Your task to perform on an android device: turn off javascript in the chrome app Image 0: 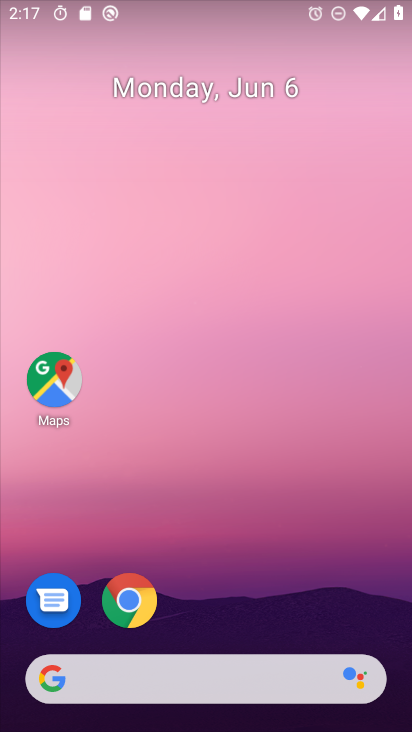
Step 0: click (228, 594)
Your task to perform on an android device: turn off javascript in the chrome app Image 1: 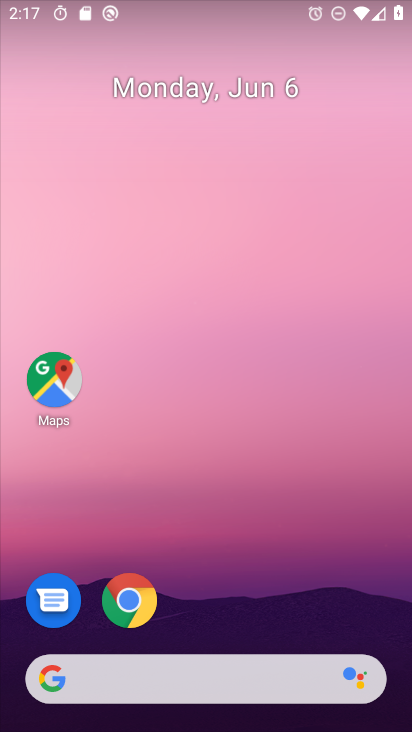
Step 1: click (137, 607)
Your task to perform on an android device: turn off javascript in the chrome app Image 2: 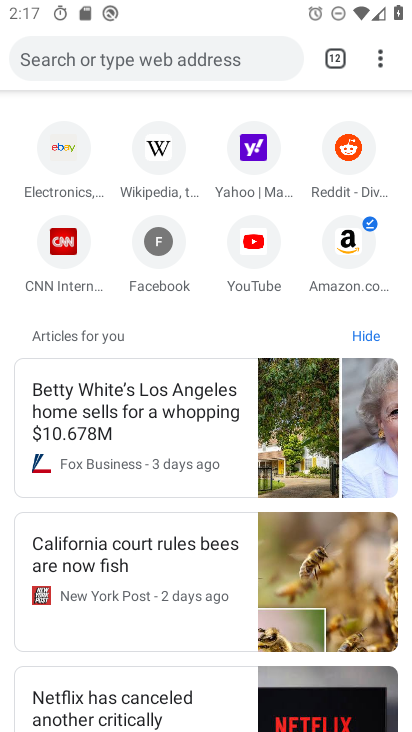
Step 2: click (373, 65)
Your task to perform on an android device: turn off javascript in the chrome app Image 3: 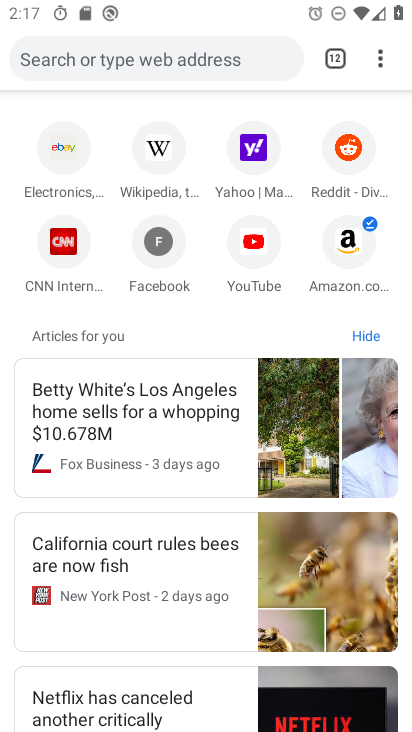
Step 3: click (380, 66)
Your task to perform on an android device: turn off javascript in the chrome app Image 4: 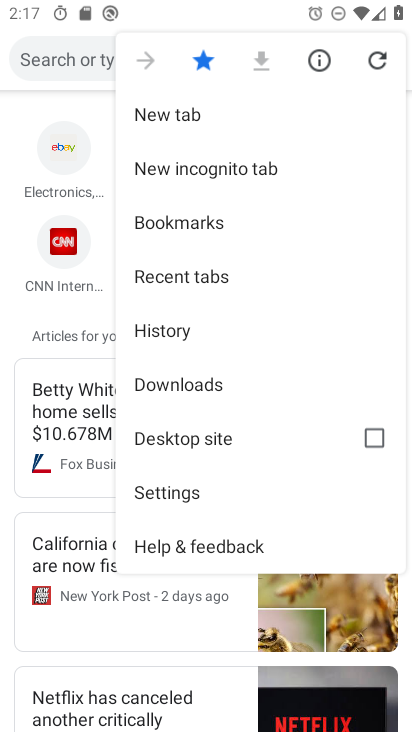
Step 4: click (194, 483)
Your task to perform on an android device: turn off javascript in the chrome app Image 5: 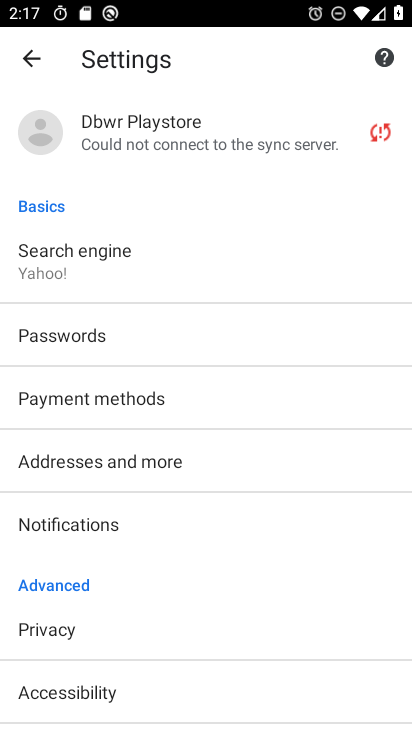
Step 5: drag from (155, 608) to (151, 323)
Your task to perform on an android device: turn off javascript in the chrome app Image 6: 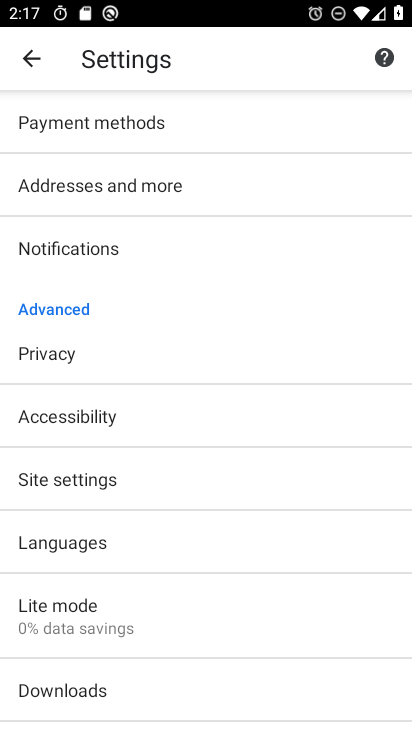
Step 6: click (101, 487)
Your task to perform on an android device: turn off javascript in the chrome app Image 7: 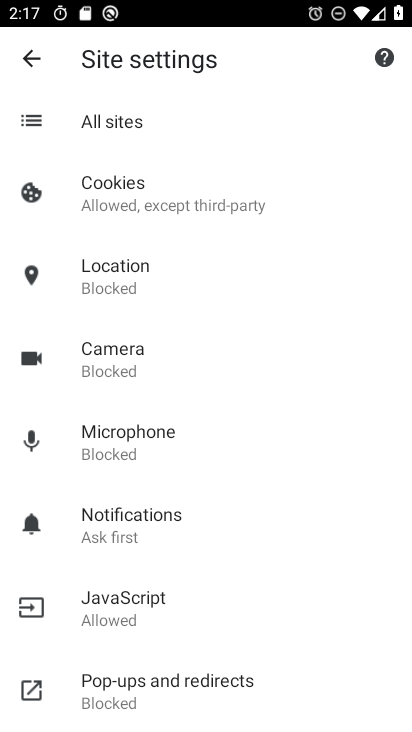
Step 7: click (169, 614)
Your task to perform on an android device: turn off javascript in the chrome app Image 8: 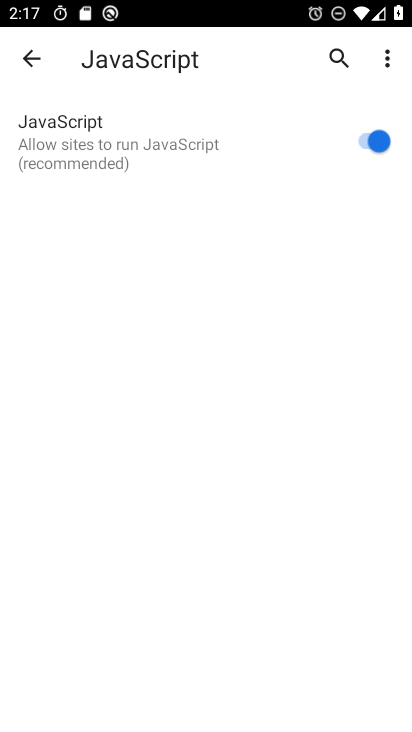
Step 8: click (358, 139)
Your task to perform on an android device: turn off javascript in the chrome app Image 9: 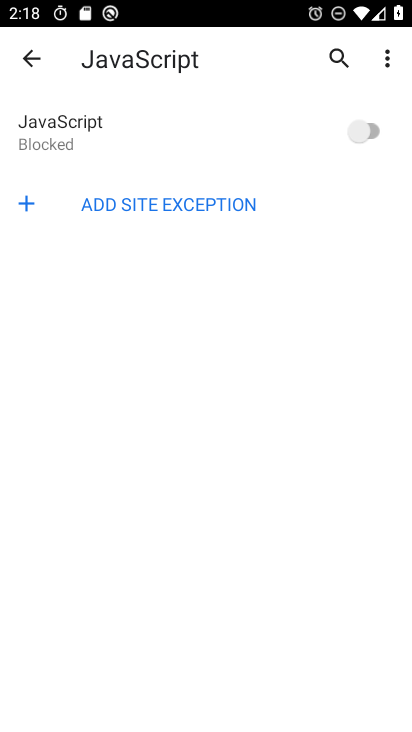
Step 9: task complete